Your task to perform on an android device: toggle wifi Image 0: 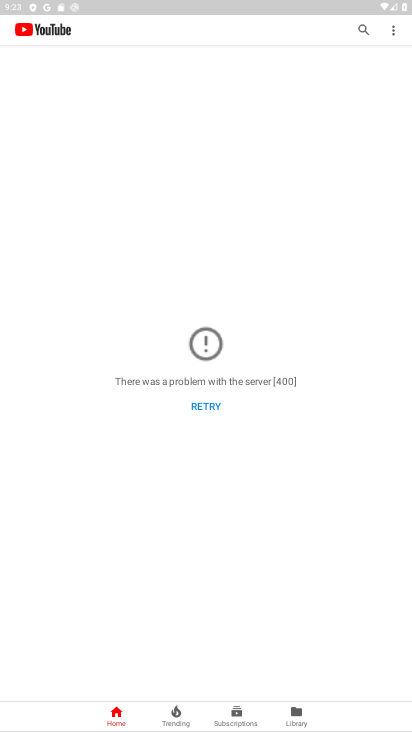
Step 0: drag from (242, 3) to (222, 479)
Your task to perform on an android device: toggle wifi Image 1: 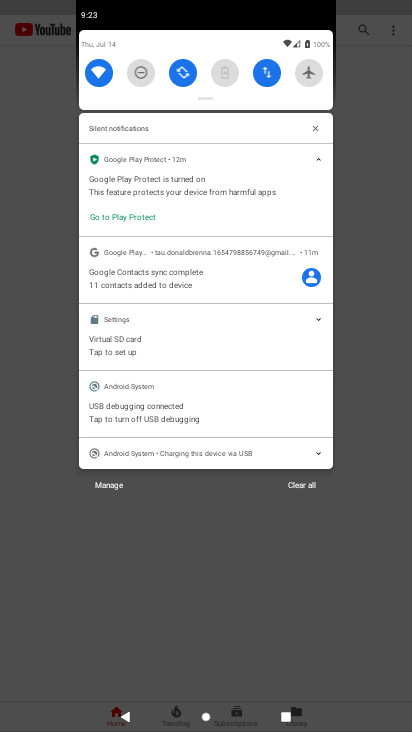
Step 1: click (102, 75)
Your task to perform on an android device: toggle wifi Image 2: 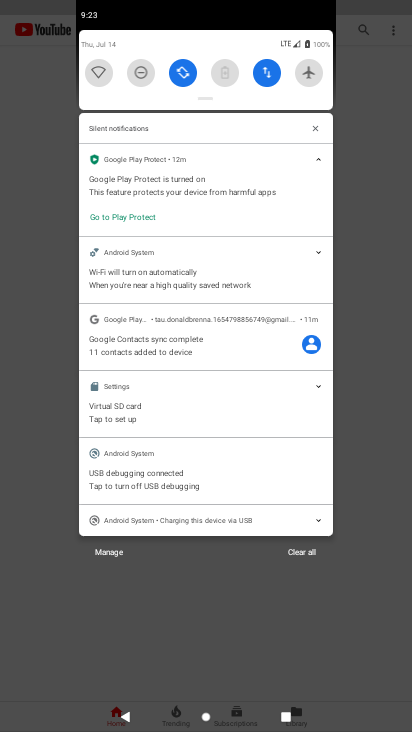
Step 2: task complete